Your task to perform on an android device: delete a single message in the gmail app Image 0: 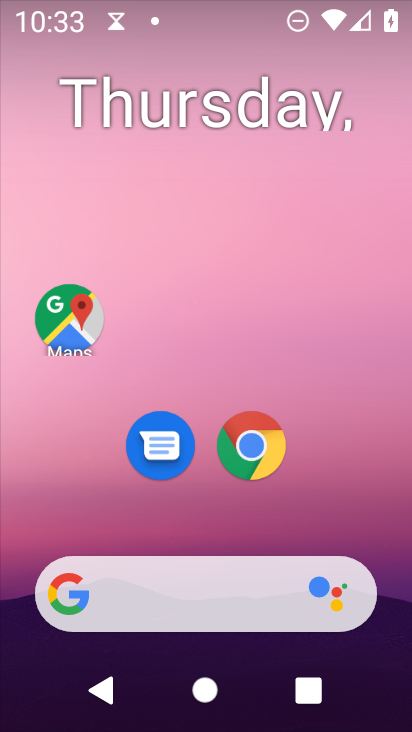
Step 0: drag from (226, 727) to (233, 1)
Your task to perform on an android device: delete a single message in the gmail app Image 1: 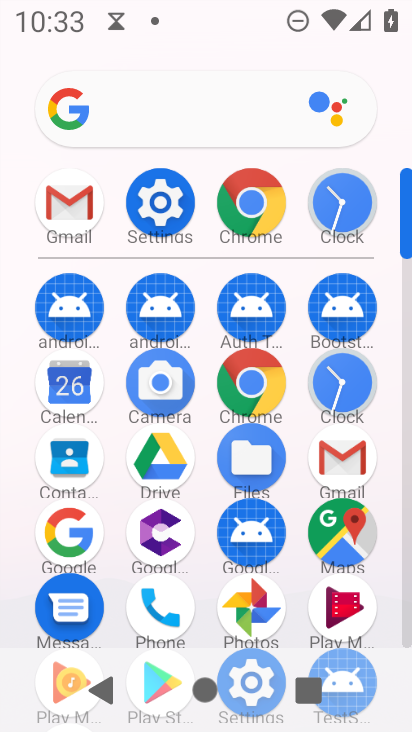
Step 1: click (348, 558)
Your task to perform on an android device: delete a single message in the gmail app Image 2: 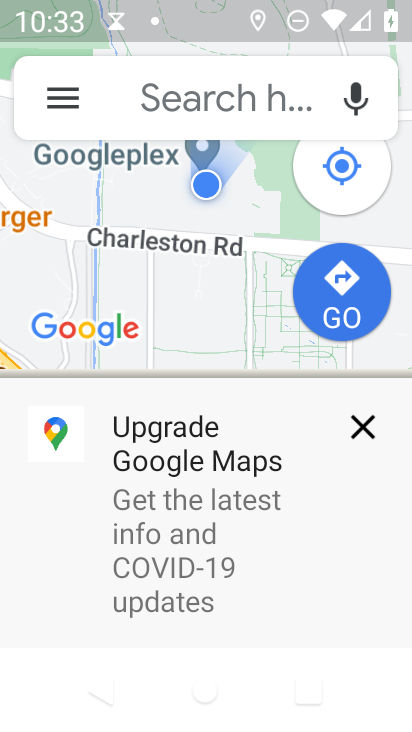
Step 2: press home button
Your task to perform on an android device: delete a single message in the gmail app Image 3: 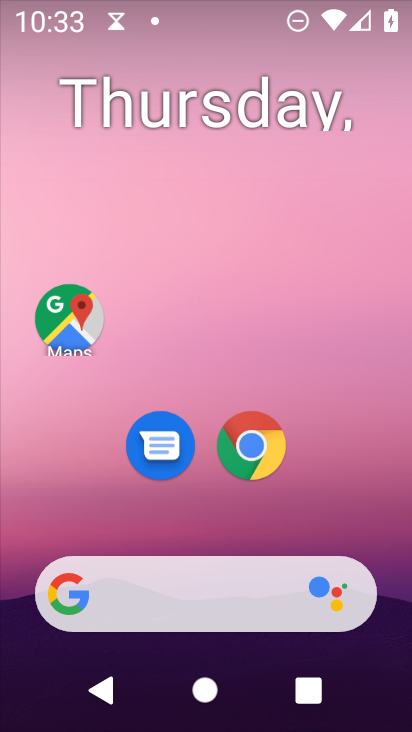
Step 3: drag from (229, 718) to (223, 125)
Your task to perform on an android device: delete a single message in the gmail app Image 4: 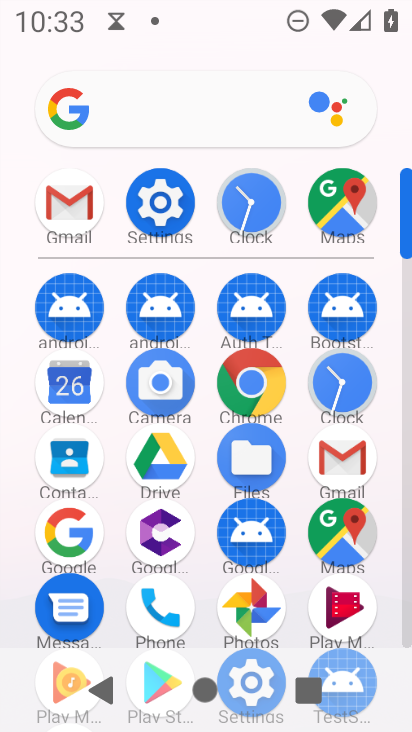
Step 4: click (337, 464)
Your task to perform on an android device: delete a single message in the gmail app Image 5: 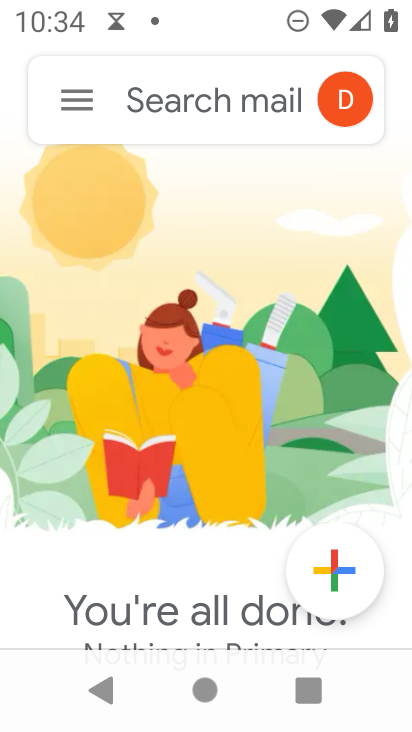
Step 5: task complete